Your task to perform on an android device: check storage Image 0: 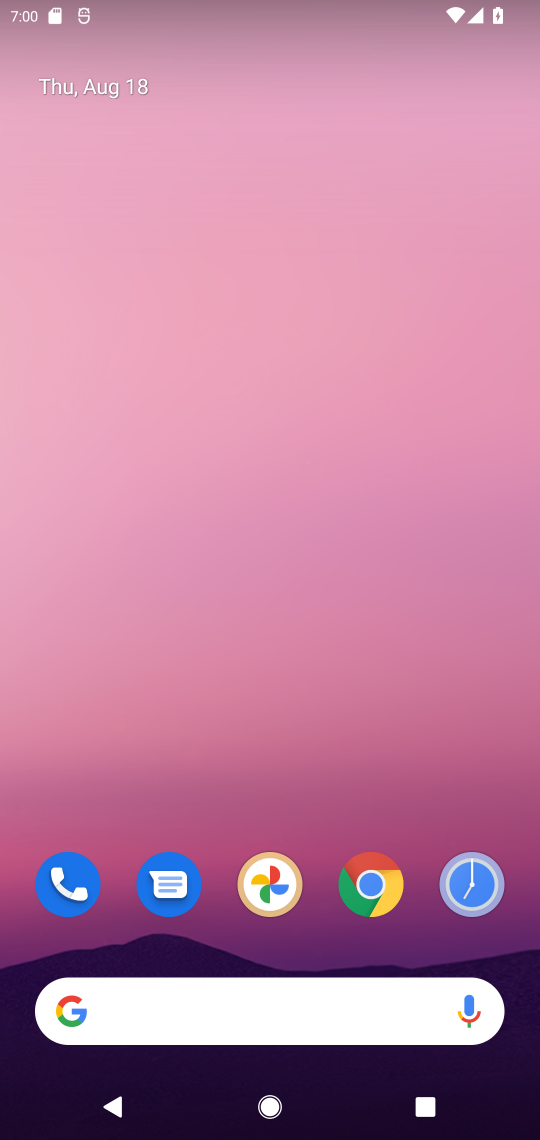
Step 0: drag from (194, 941) to (306, 201)
Your task to perform on an android device: check storage Image 1: 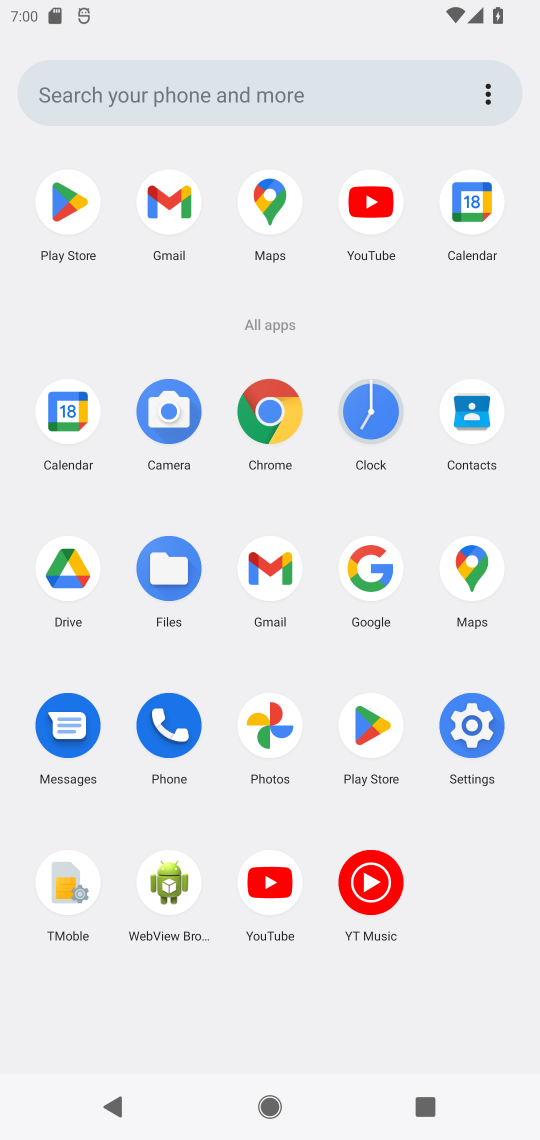
Step 1: click (462, 738)
Your task to perform on an android device: check storage Image 2: 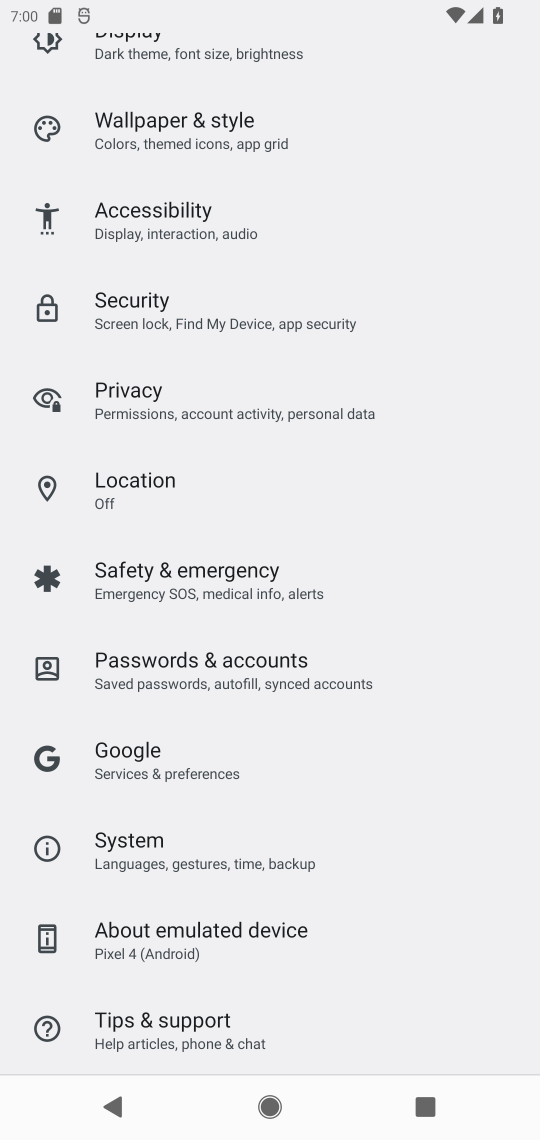
Step 2: drag from (341, 101) to (200, 853)
Your task to perform on an android device: check storage Image 3: 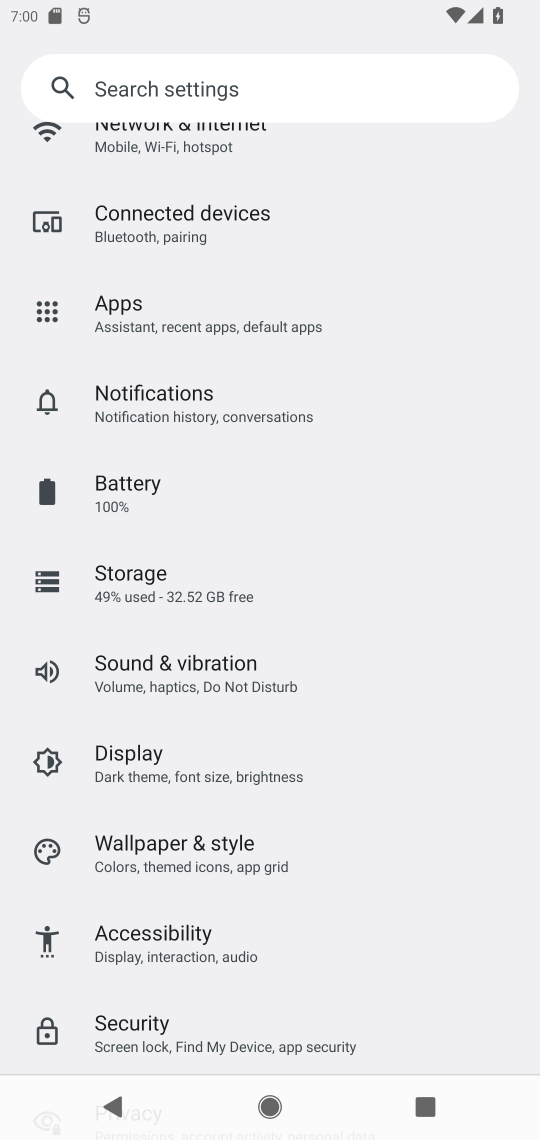
Step 3: click (247, 227)
Your task to perform on an android device: check storage Image 4: 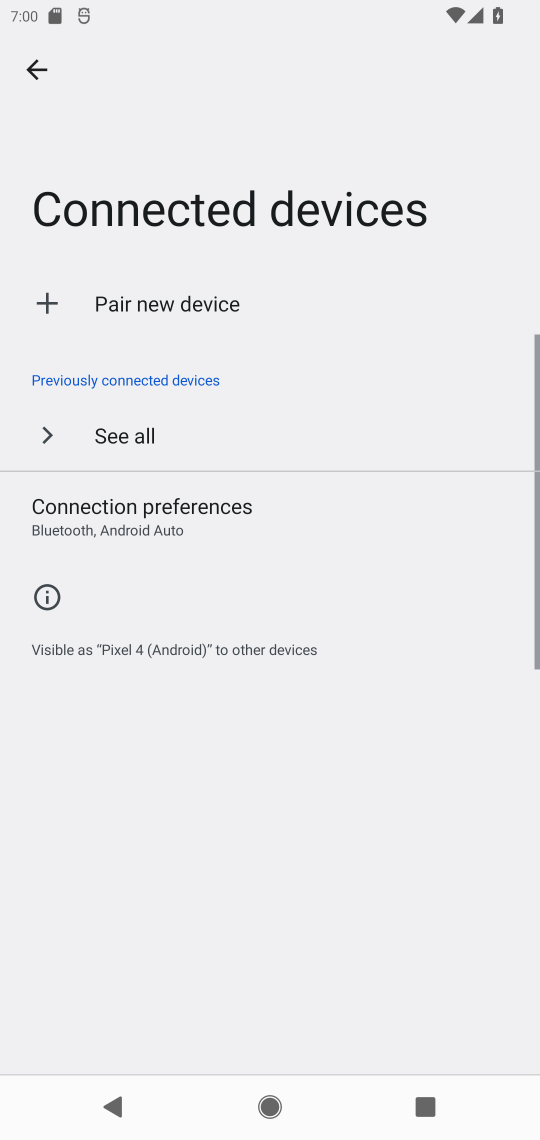
Step 4: click (241, 610)
Your task to perform on an android device: check storage Image 5: 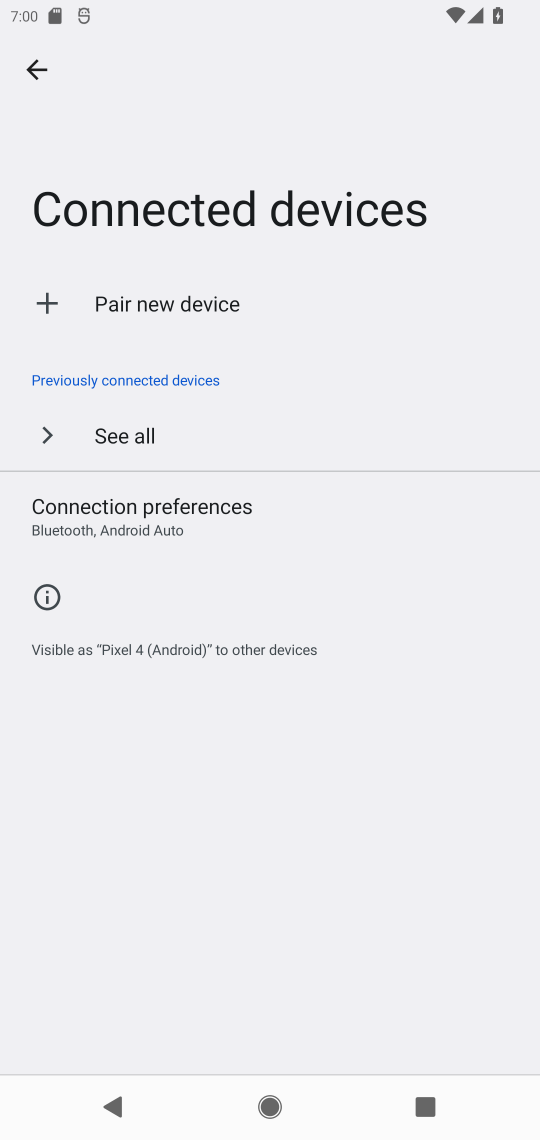
Step 5: task complete